Your task to perform on an android device: open a bookmark in the chrome app Image 0: 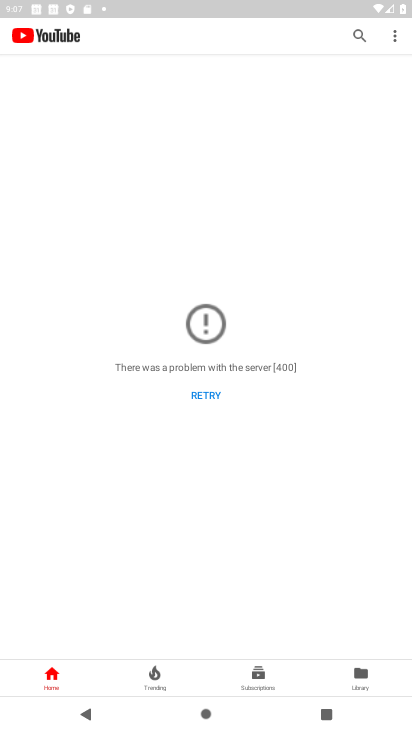
Step 0: press home button
Your task to perform on an android device: open a bookmark in the chrome app Image 1: 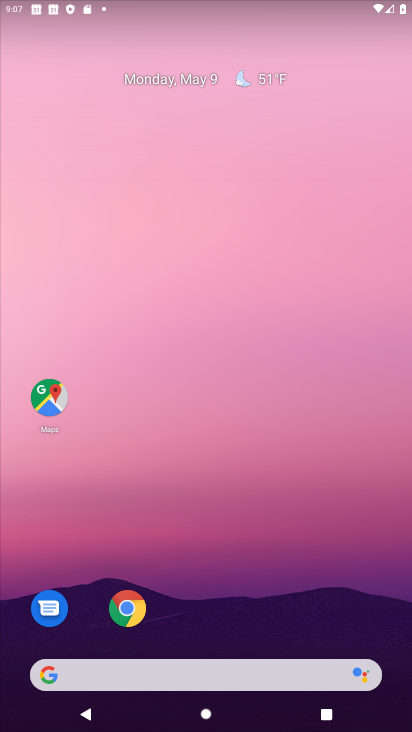
Step 1: drag from (334, 492) to (15, 92)
Your task to perform on an android device: open a bookmark in the chrome app Image 2: 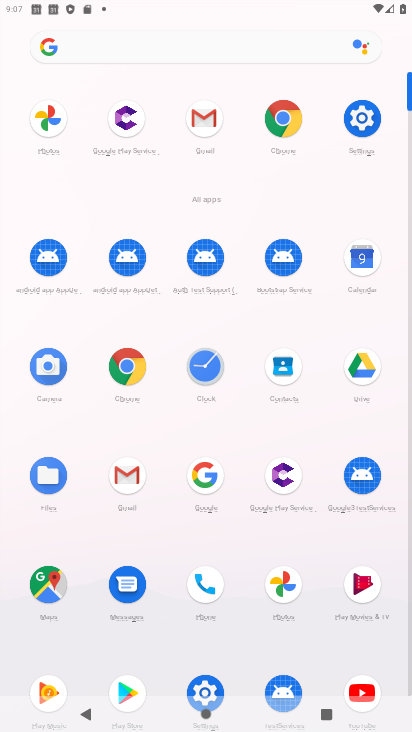
Step 2: click (284, 123)
Your task to perform on an android device: open a bookmark in the chrome app Image 3: 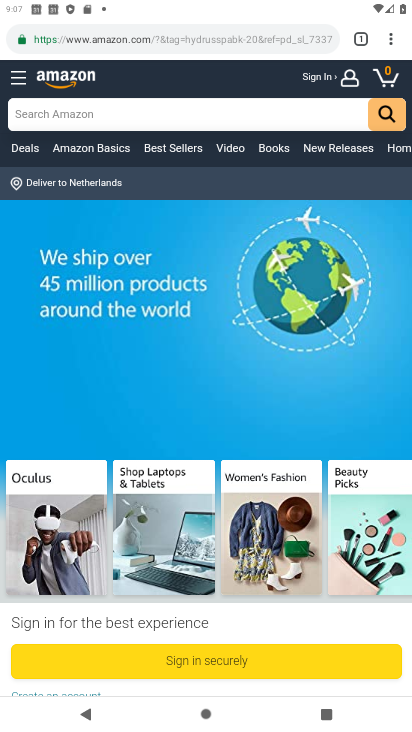
Step 3: task complete